Your task to perform on an android device: toggle javascript in the chrome app Image 0: 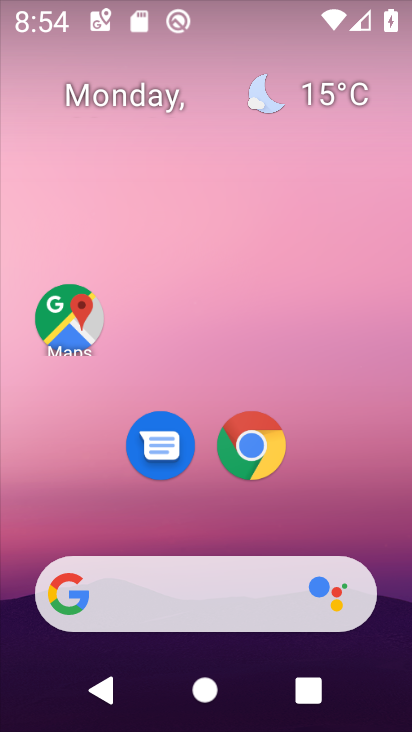
Step 0: click (250, 445)
Your task to perform on an android device: toggle javascript in the chrome app Image 1: 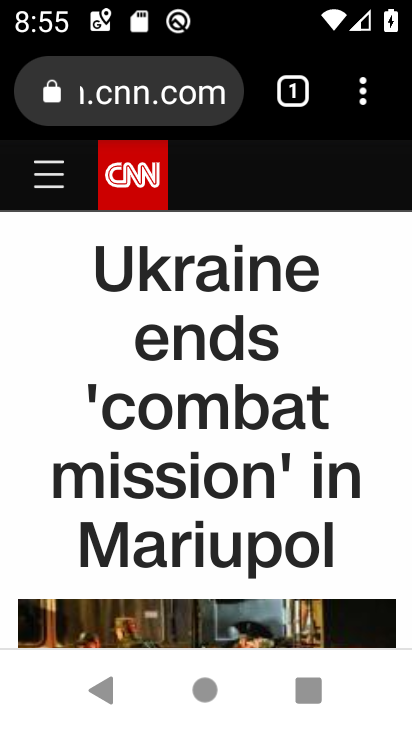
Step 1: click (357, 82)
Your task to perform on an android device: toggle javascript in the chrome app Image 2: 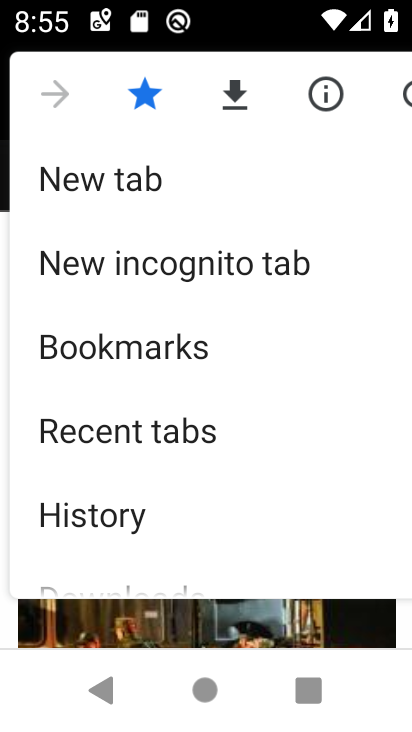
Step 2: drag from (192, 552) to (186, 132)
Your task to perform on an android device: toggle javascript in the chrome app Image 3: 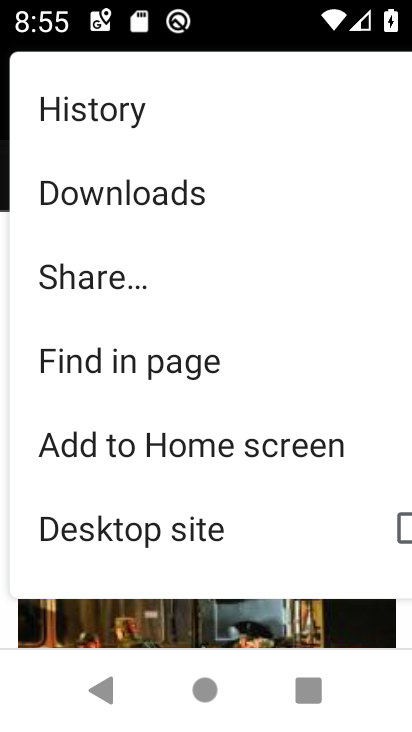
Step 3: drag from (148, 524) to (147, 92)
Your task to perform on an android device: toggle javascript in the chrome app Image 4: 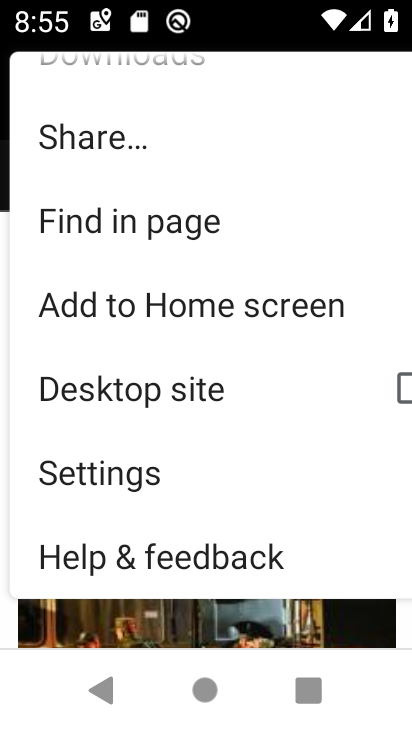
Step 4: click (140, 468)
Your task to perform on an android device: toggle javascript in the chrome app Image 5: 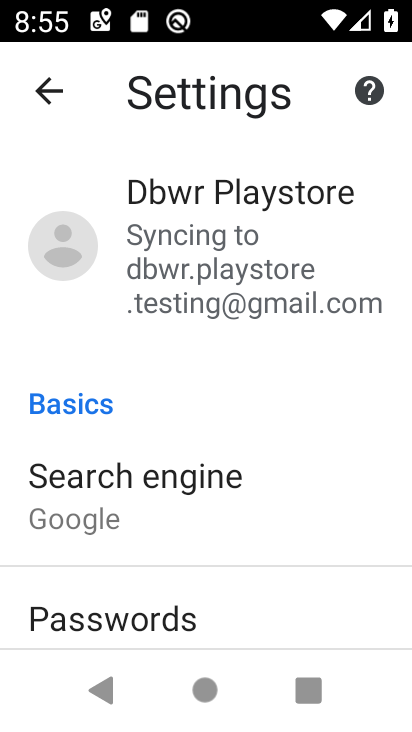
Step 5: drag from (249, 620) to (239, 174)
Your task to perform on an android device: toggle javascript in the chrome app Image 6: 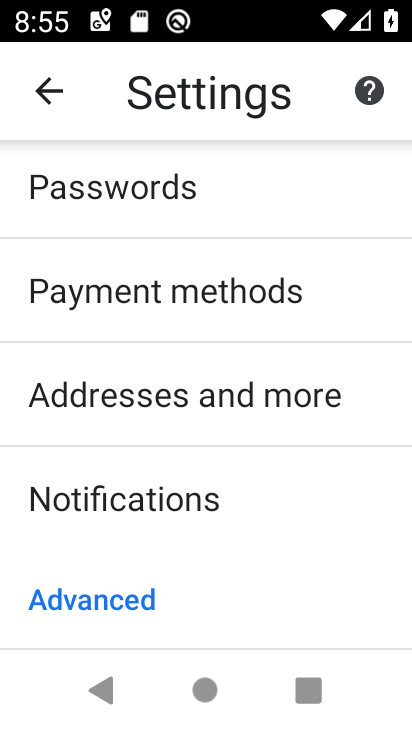
Step 6: drag from (194, 550) to (180, 142)
Your task to perform on an android device: toggle javascript in the chrome app Image 7: 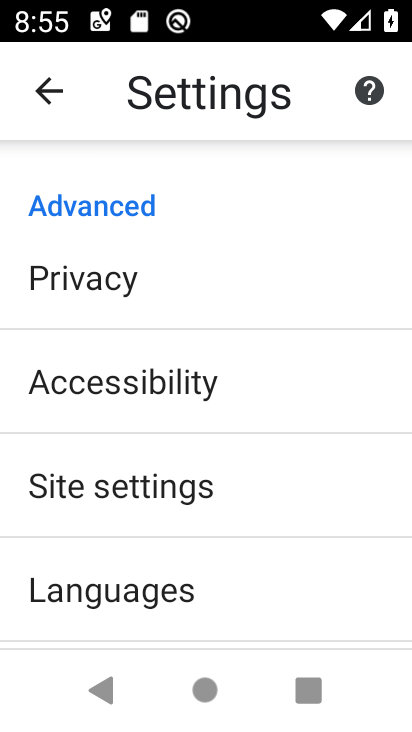
Step 7: click (230, 496)
Your task to perform on an android device: toggle javascript in the chrome app Image 8: 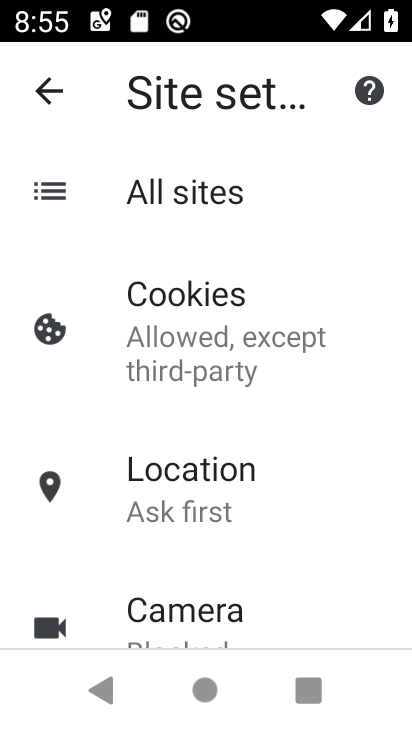
Step 8: drag from (236, 578) to (241, 214)
Your task to perform on an android device: toggle javascript in the chrome app Image 9: 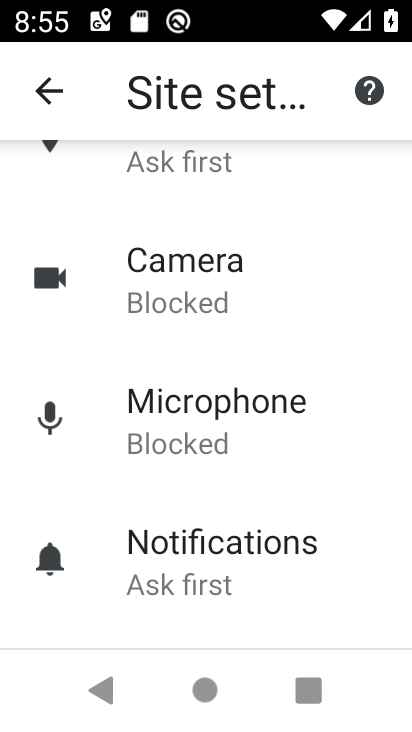
Step 9: drag from (239, 543) to (239, 227)
Your task to perform on an android device: toggle javascript in the chrome app Image 10: 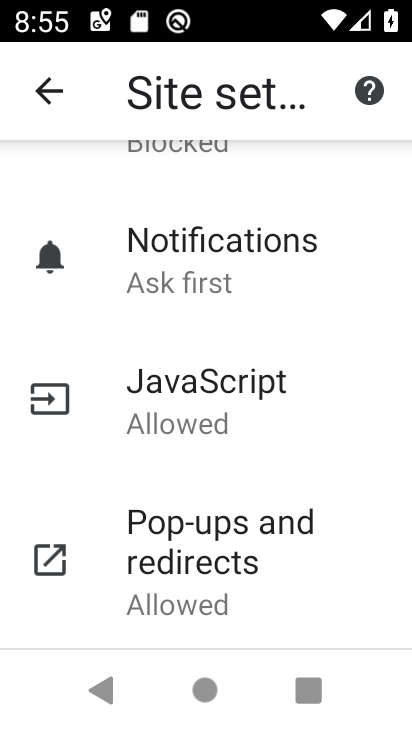
Step 10: click (115, 402)
Your task to perform on an android device: toggle javascript in the chrome app Image 11: 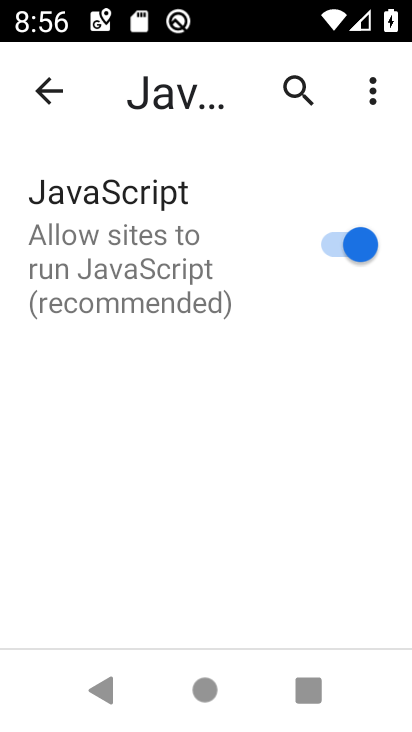
Step 11: click (334, 231)
Your task to perform on an android device: toggle javascript in the chrome app Image 12: 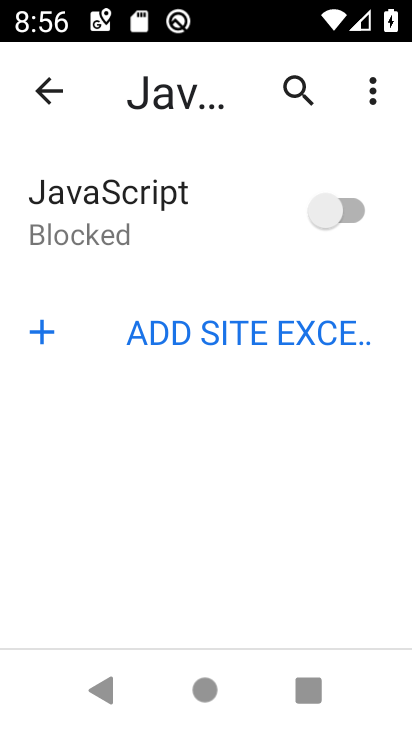
Step 12: task complete